Your task to perform on an android device: Go to notification settings Image 0: 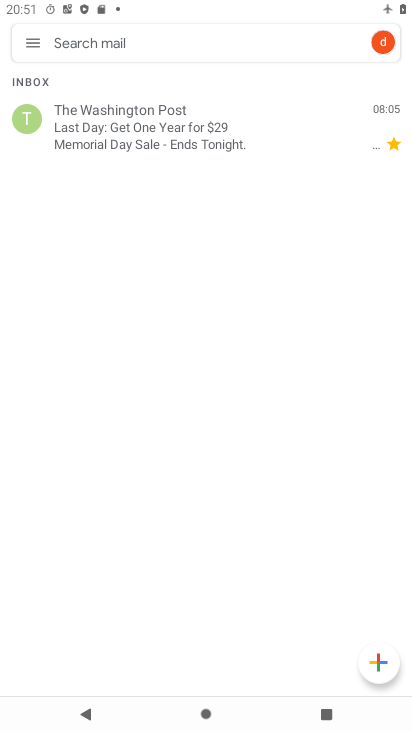
Step 0: press home button
Your task to perform on an android device: Go to notification settings Image 1: 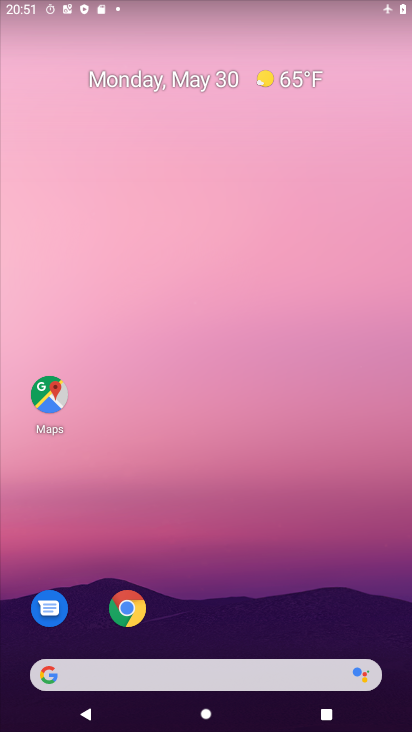
Step 1: drag from (227, 627) to (211, 184)
Your task to perform on an android device: Go to notification settings Image 2: 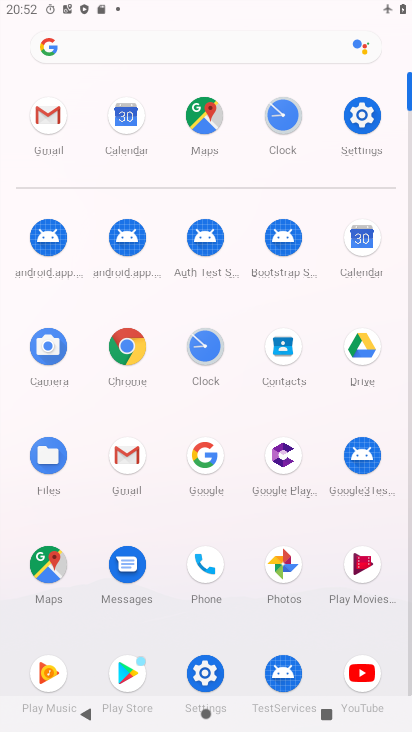
Step 2: click (356, 136)
Your task to perform on an android device: Go to notification settings Image 3: 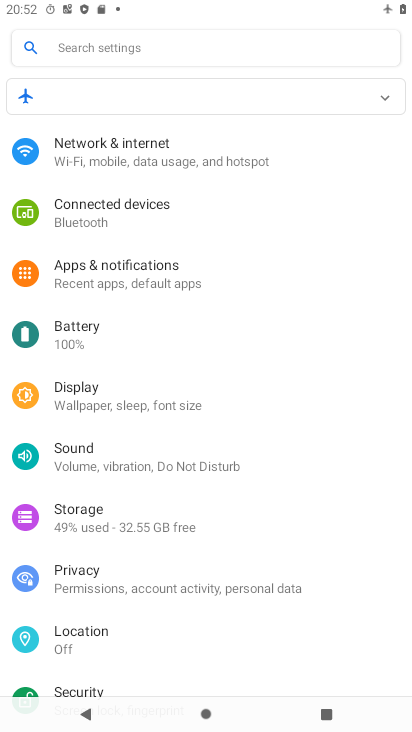
Step 3: click (160, 266)
Your task to perform on an android device: Go to notification settings Image 4: 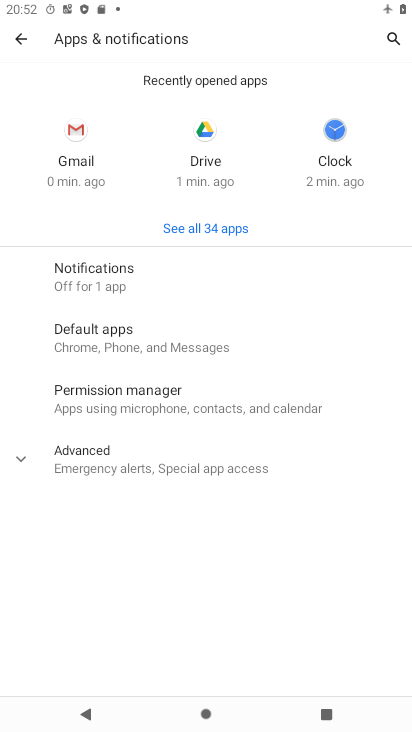
Step 4: click (104, 295)
Your task to perform on an android device: Go to notification settings Image 5: 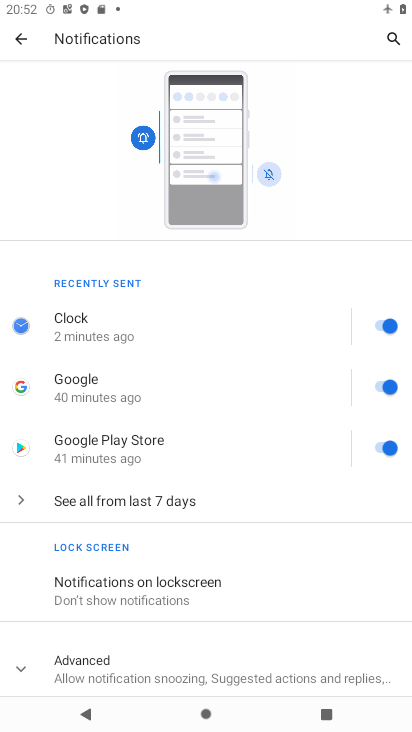
Step 5: task complete